Your task to perform on an android device: change your default location settings in chrome Image 0: 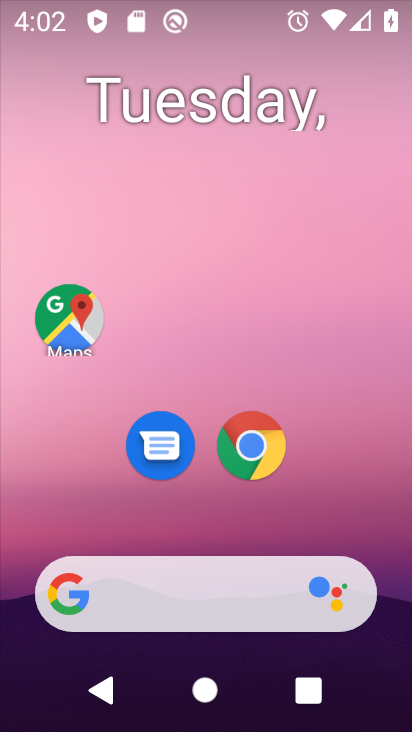
Step 0: click (282, 462)
Your task to perform on an android device: change your default location settings in chrome Image 1: 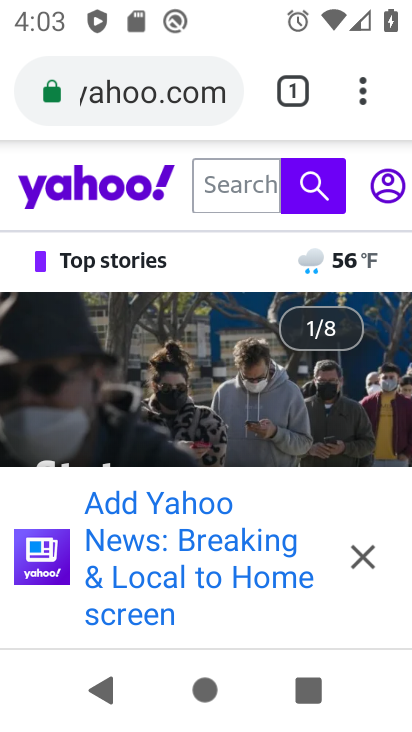
Step 1: click (91, 98)
Your task to perform on an android device: change your default location settings in chrome Image 2: 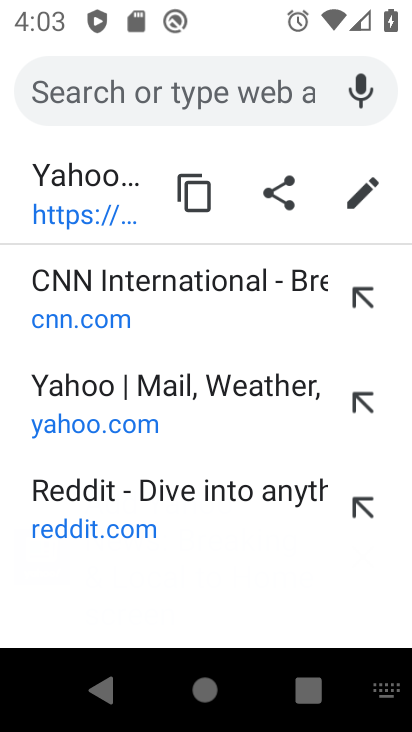
Step 2: click (218, 665)
Your task to perform on an android device: change your default location settings in chrome Image 3: 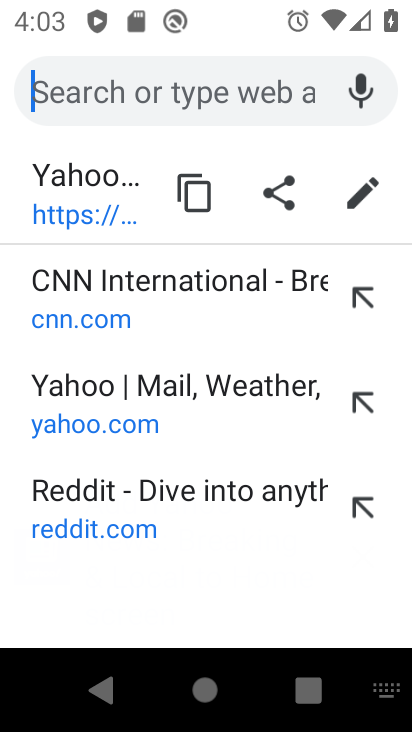
Step 3: press back button
Your task to perform on an android device: change your default location settings in chrome Image 4: 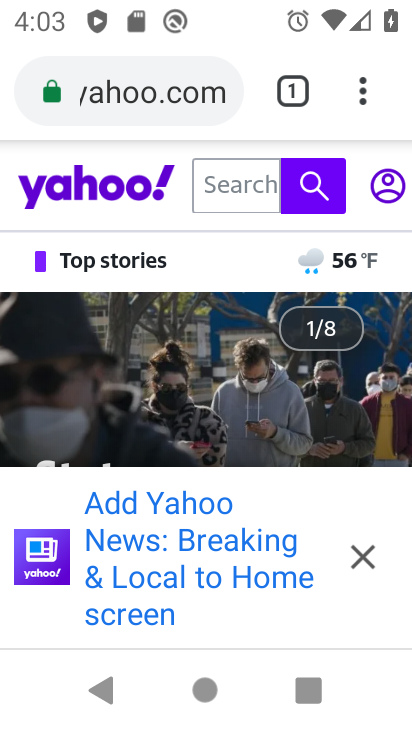
Step 4: click (356, 92)
Your task to perform on an android device: change your default location settings in chrome Image 5: 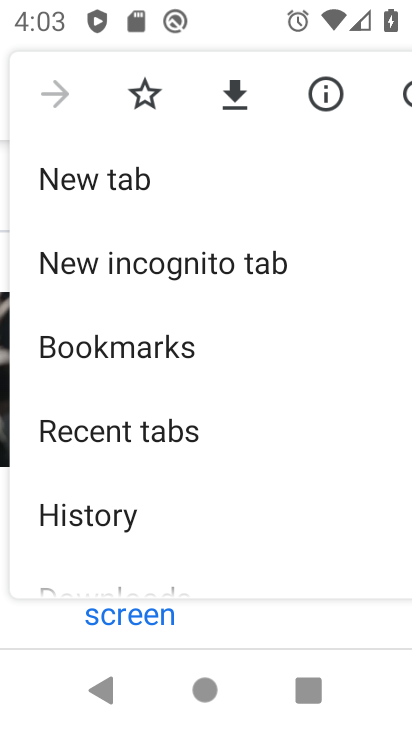
Step 5: drag from (265, 562) to (273, 348)
Your task to perform on an android device: change your default location settings in chrome Image 6: 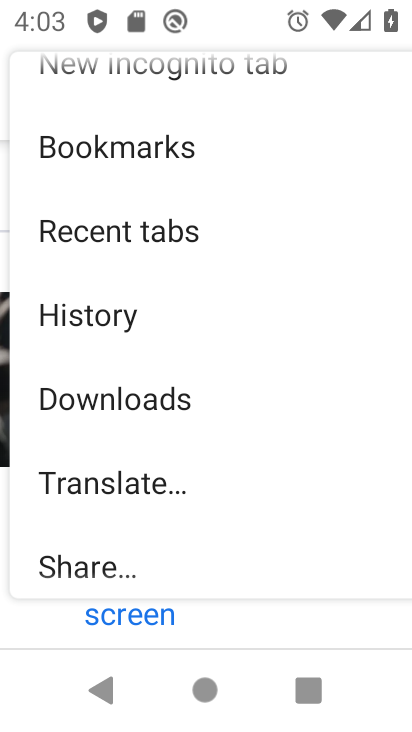
Step 6: drag from (319, 534) to (381, 207)
Your task to perform on an android device: change your default location settings in chrome Image 7: 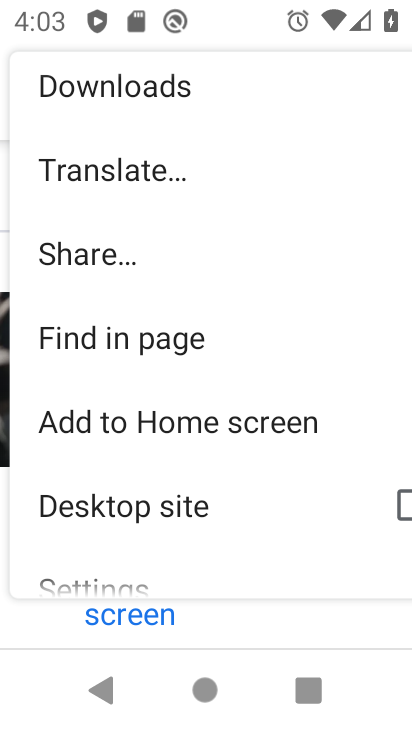
Step 7: click (381, 207)
Your task to perform on an android device: change your default location settings in chrome Image 8: 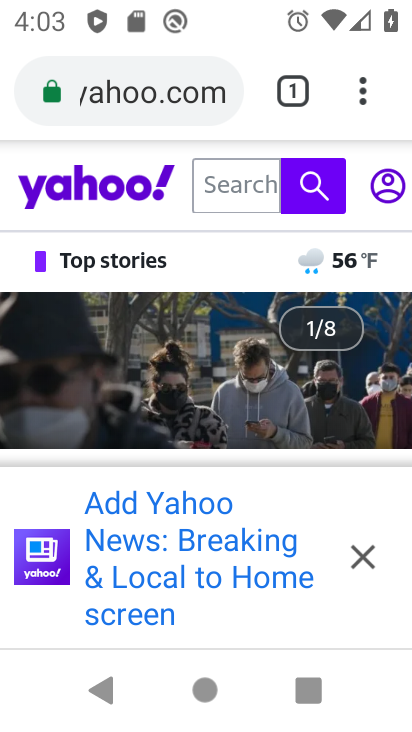
Step 8: click (368, 115)
Your task to perform on an android device: change your default location settings in chrome Image 9: 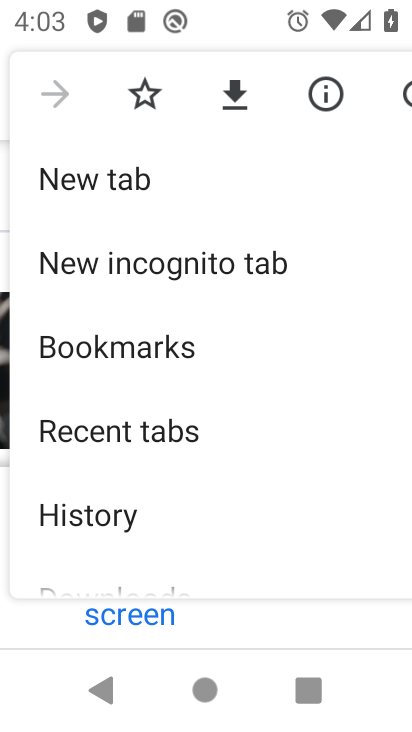
Step 9: drag from (358, 545) to (353, 170)
Your task to perform on an android device: change your default location settings in chrome Image 10: 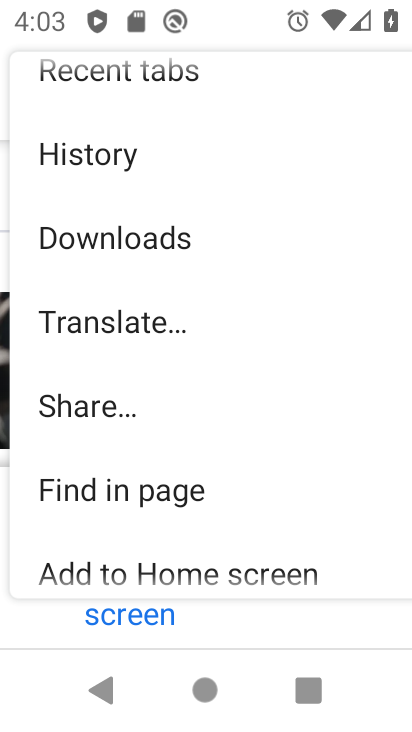
Step 10: drag from (334, 552) to (347, 184)
Your task to perform on an android device: change your default location settings in chrome Image 11: 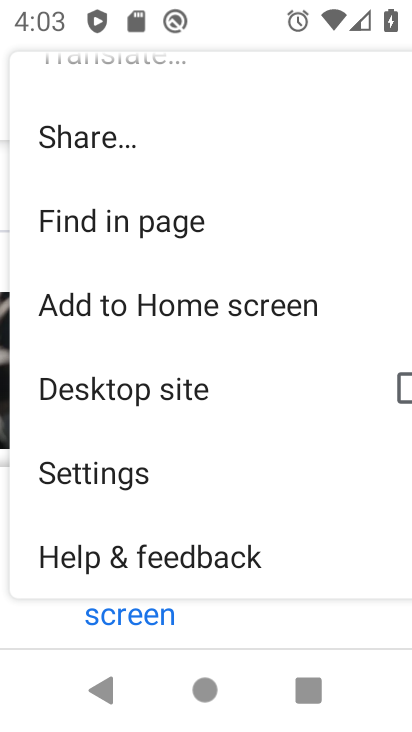
Step 11: click (218, 460)
Your task to perform on an android device: change your default location settings in chrome Image 12: 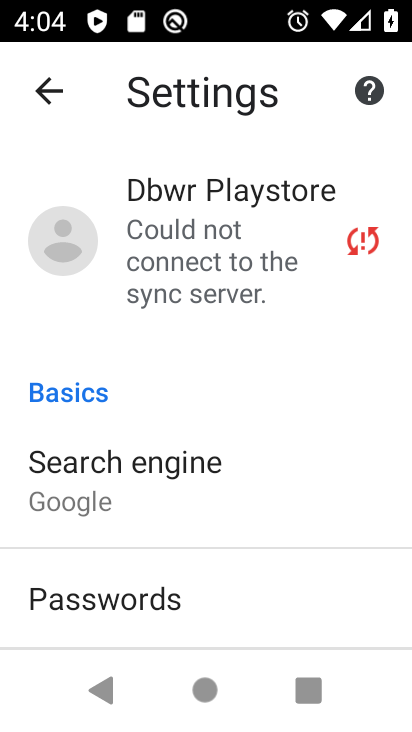
Step 12: drag from (276, 499) to (274, 49)
Your task to perform on an android device: change your default location settings in chrome Image 13: 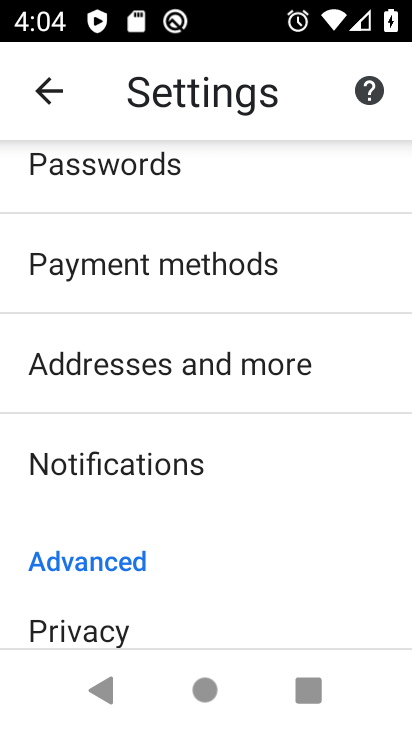
Step 13: drag from (283, 579) to (341, 57)
Your task to perform on an android device: change your default location settings in chrome Image 14: 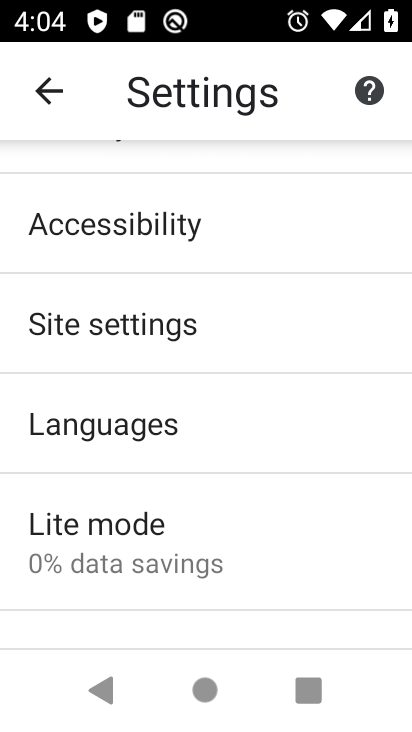
Step 14: click (314, 318)
Your task to perform on an android device: change your default location settings in chrome Image 15: 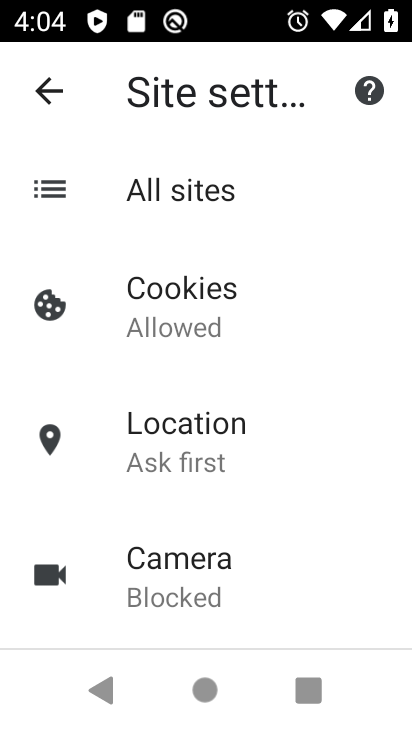
Step 15: click (211, 445)
Your task to perform on an android device: change your default location settings in chrome Image 16: 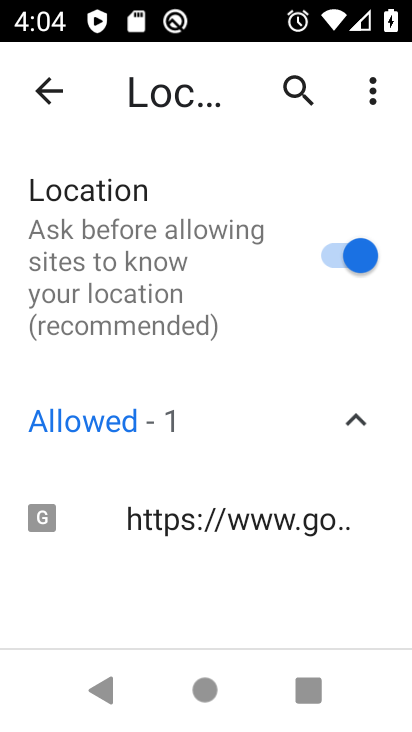
Step 16: click (343, 253)
Your task to perform on an android device: change your default location settings in chrome Image 17: 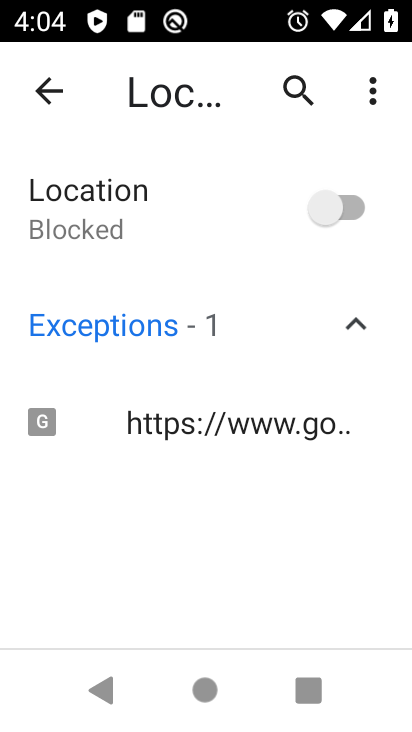
Step 17: task complete